Your task to perform on an android device: see tabs open on other devices in the chrome app Image 0: 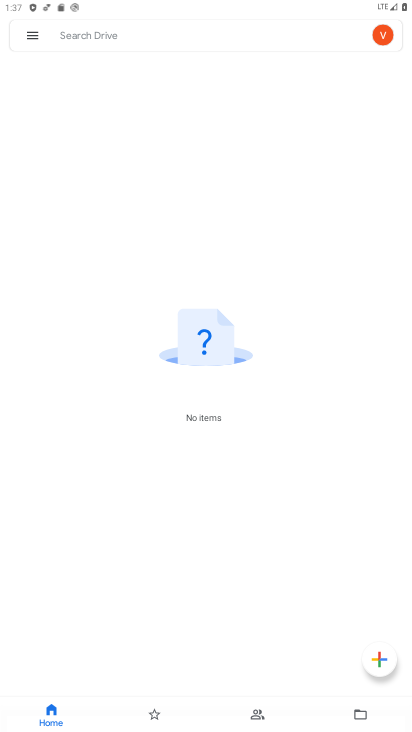
Step 0: press home button
Your task to perform on an android device: see tabs open on other devices in the chrome app Image 1: 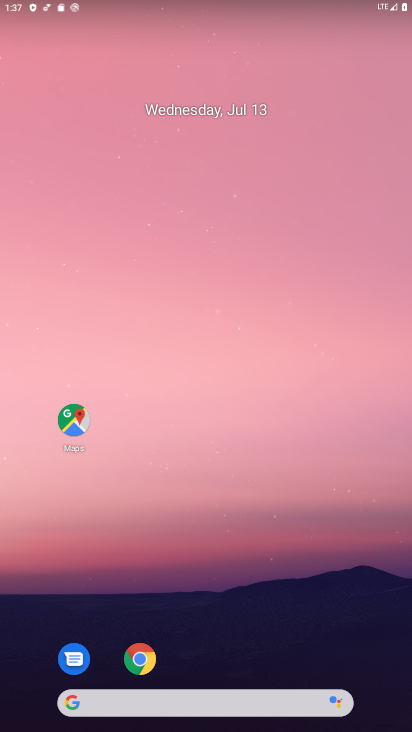
Step 1: click (140, 661)
Your task to perform on an android device: see tabs open on other devices in the chrome app Image 2: 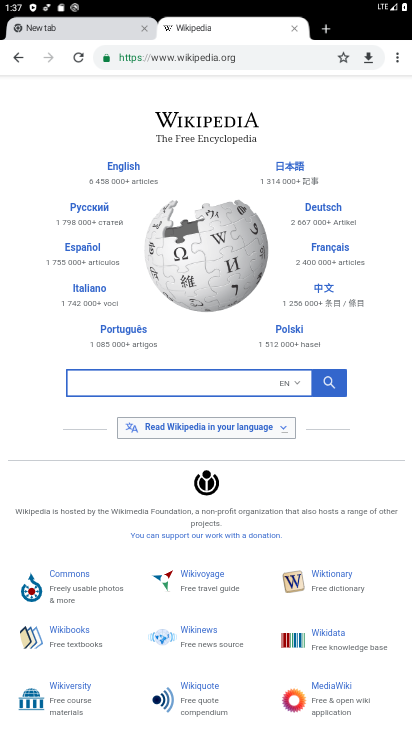
Step 2: click (400, 63)
Your task to perform on an android device: see tabs open on other devices in the chrome app Image 3: 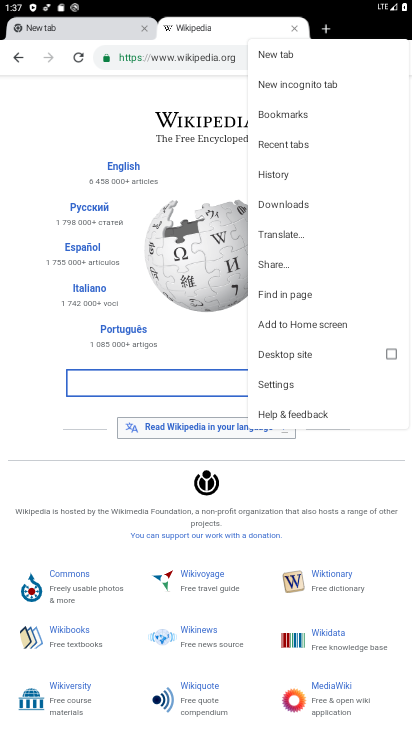
Step 3: click (276, 143)
Your task to perform on an android device: see tabs open on other devices in the chrome app Image 4: 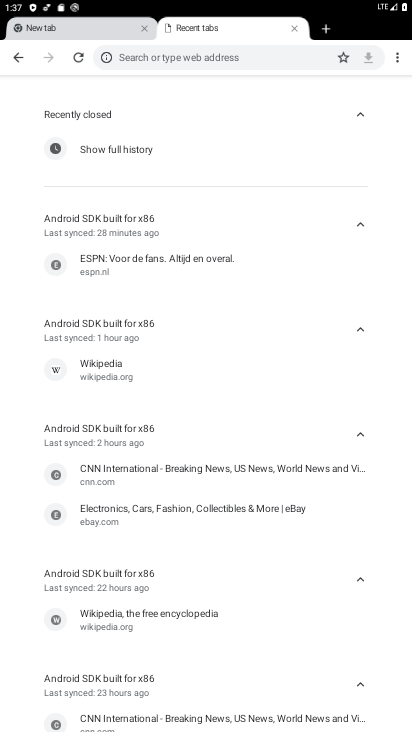
Step 4: task complete